Your task to perform on an android device: open sync settings in chrome Image 0: 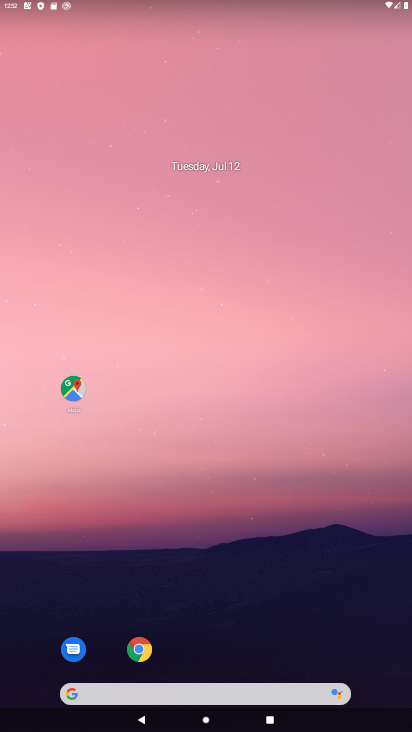
Step 0: click (130, 646)
Your task to perform on an android device: open sync settings in chrome Image 1: 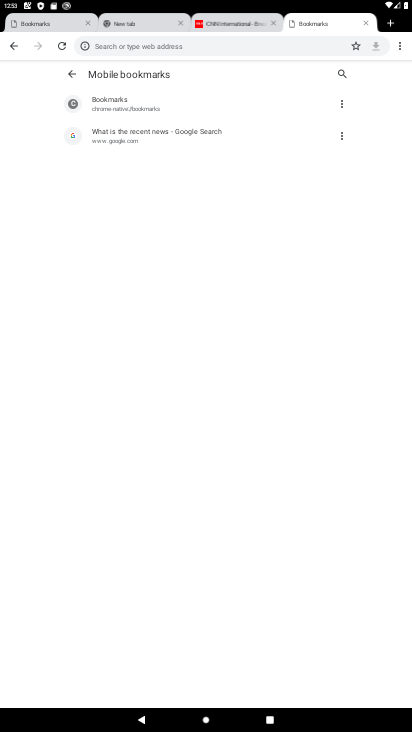
Step 1: task complete